Your task to perform on an android device: Open the Play Movies app and select the watchlist tab. Image 0: 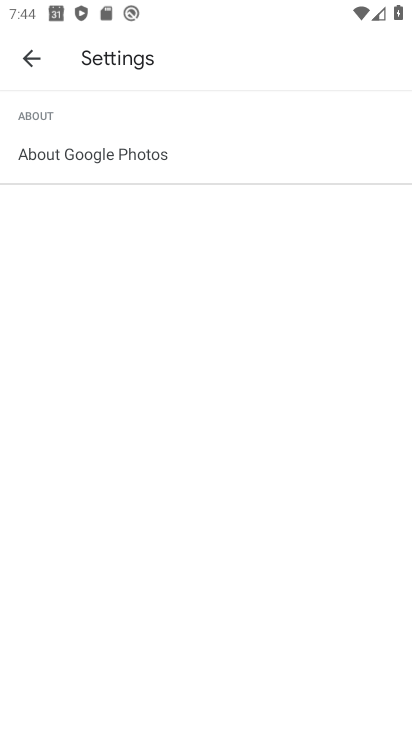
Step 0: press home button
Your task to perform on an android device: Open the Play Movies app and select the watchlist tab. Image 1: 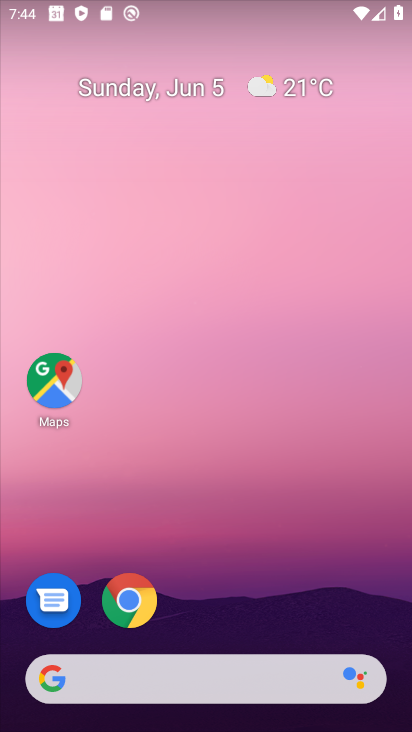
Step 1: drag from (124, 720) to (168, 84)
Your task to perform on an android device: Open the Play Movies app and select the watchlist tab. Image 2: 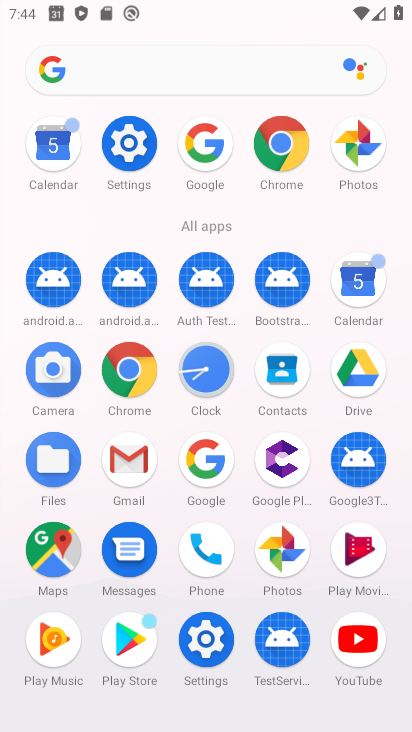
Step 2: click (364, 560)
Your task to perform on an android device: Open the Play Movies app and select the watchlist tab. Image 3: 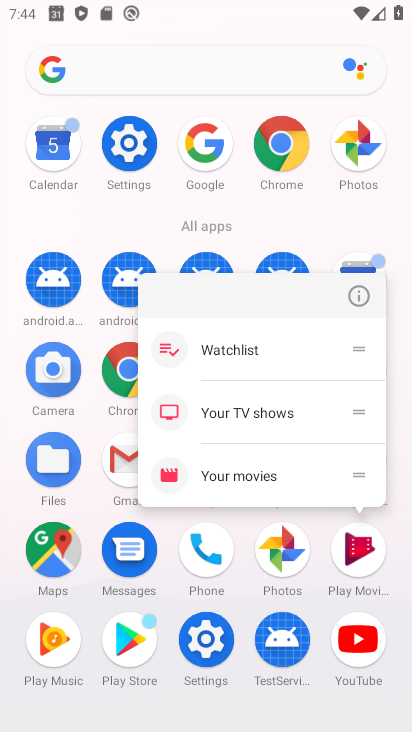
Step 3: click (364, 560)
Your task to perform on an android device: Open the Play Movies app and select the watchlist tab. Image 4: 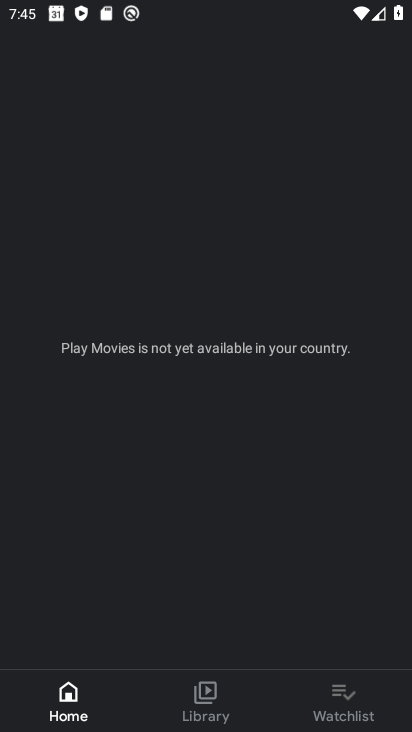
Step 4: click (327, 712)
Your task to perform on an android device: Open the Play Movies app and select the watchlist tab. Image 5: 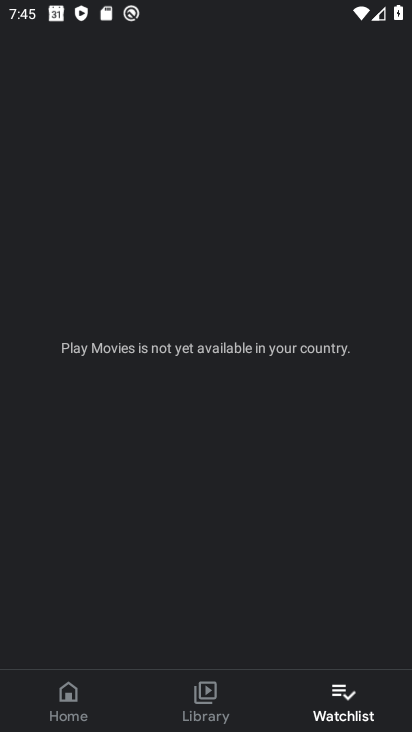
Step 5: task complete